Your task to perform on an android device: Show the shopping cart on ebay. Image 0: 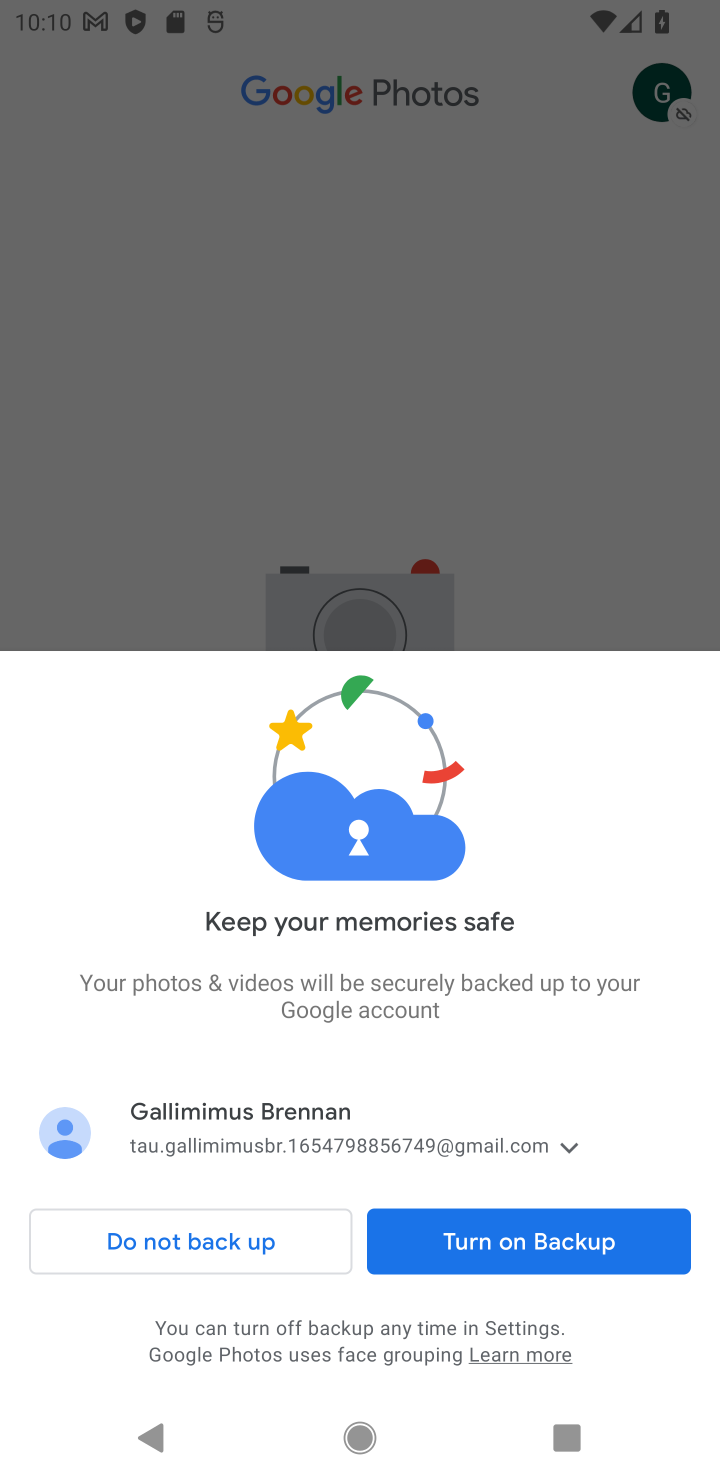
Step 0: press home button
Your task to perform on an android device: Show the shopping cart on ebay. Image 1: 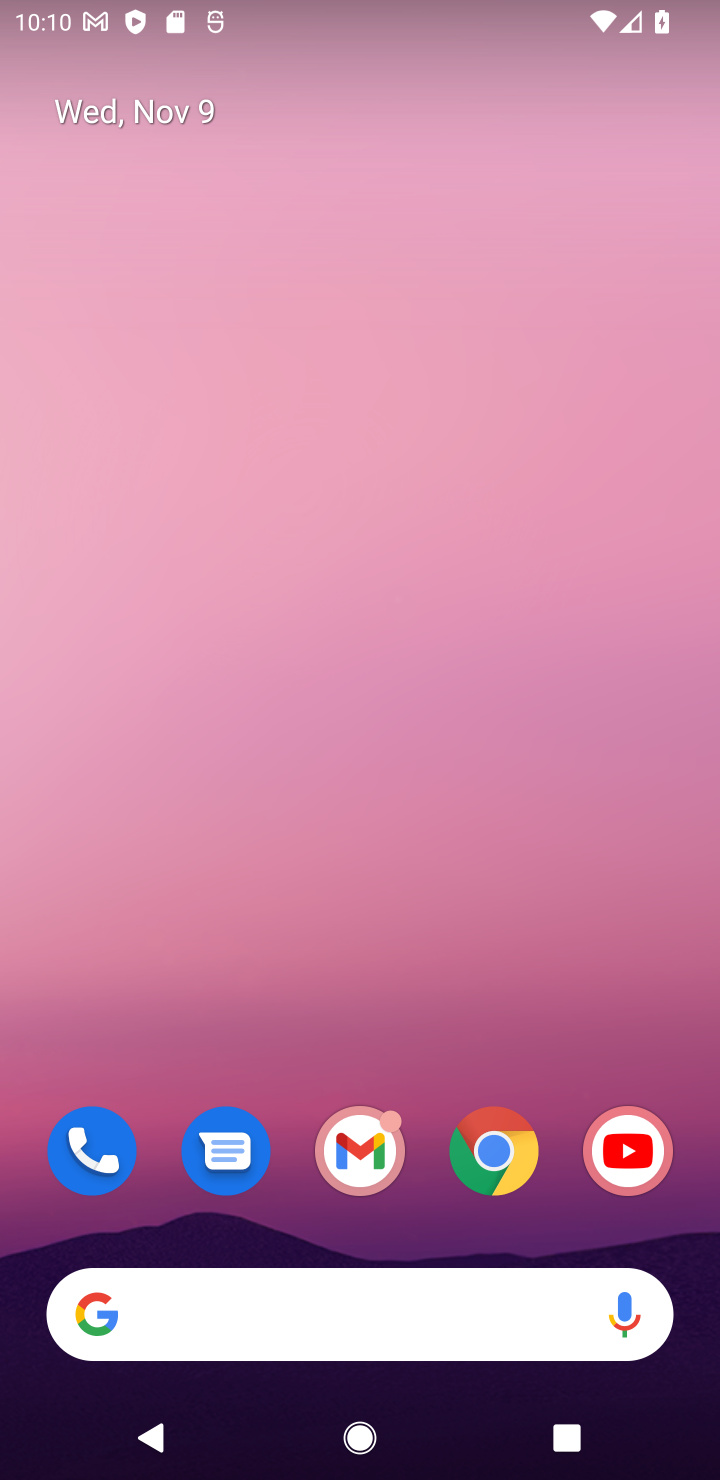
Step 1: click (501, 1142)
Your task to perform on an android device: Show the shopping cart on ebay. Image 2: 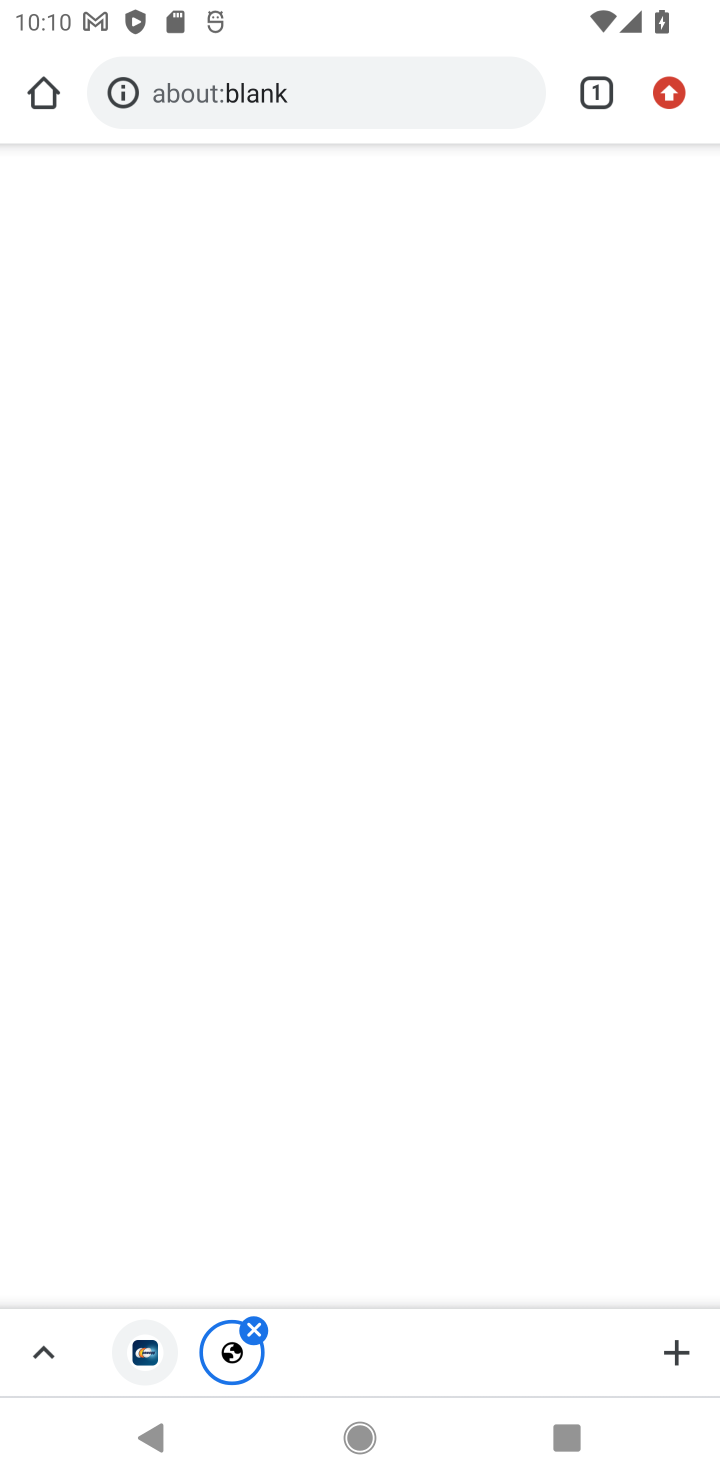
Step 2: press home button
Your task to perform on an android device: Show the shopping cart on ebay. Image 3: 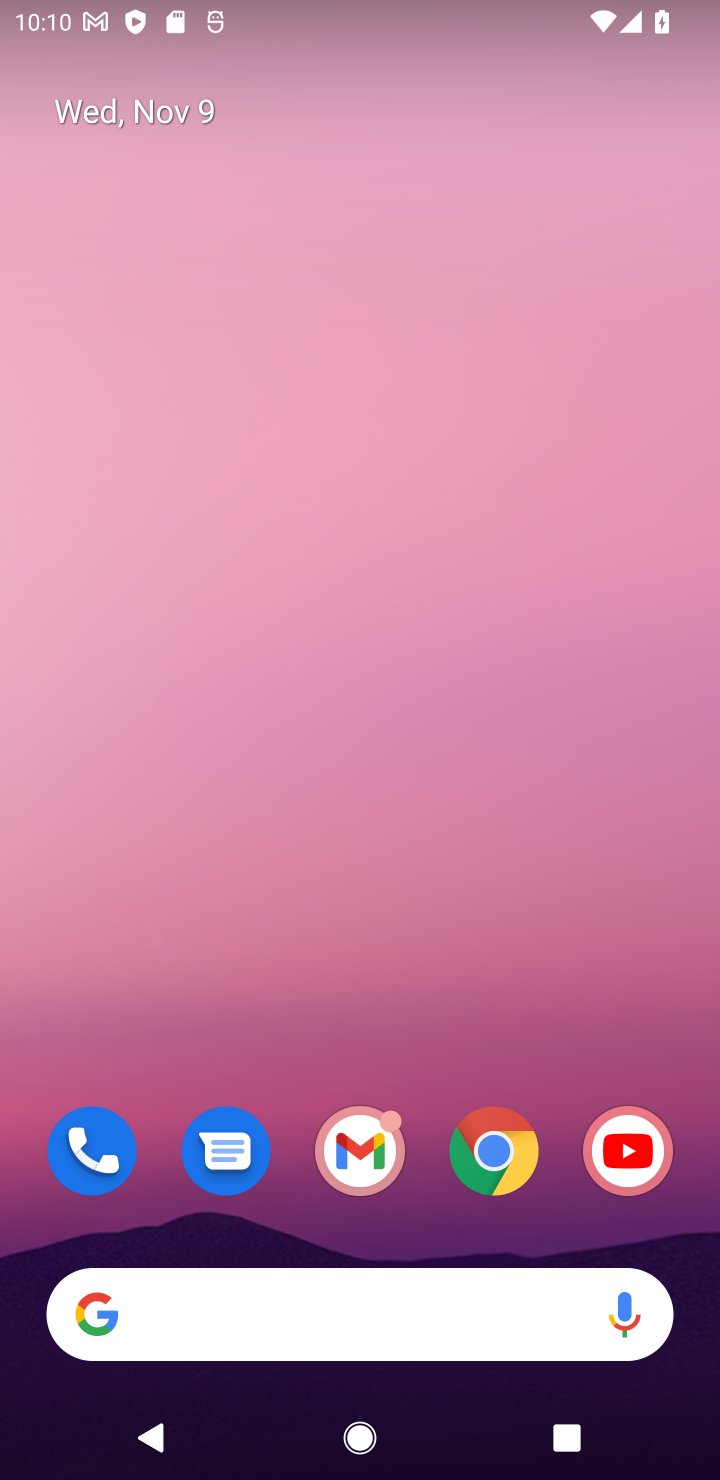
Step 3: click (501, 1147)
Your task to perform on an android device: Show the shopping cart on ebay. Image 4: 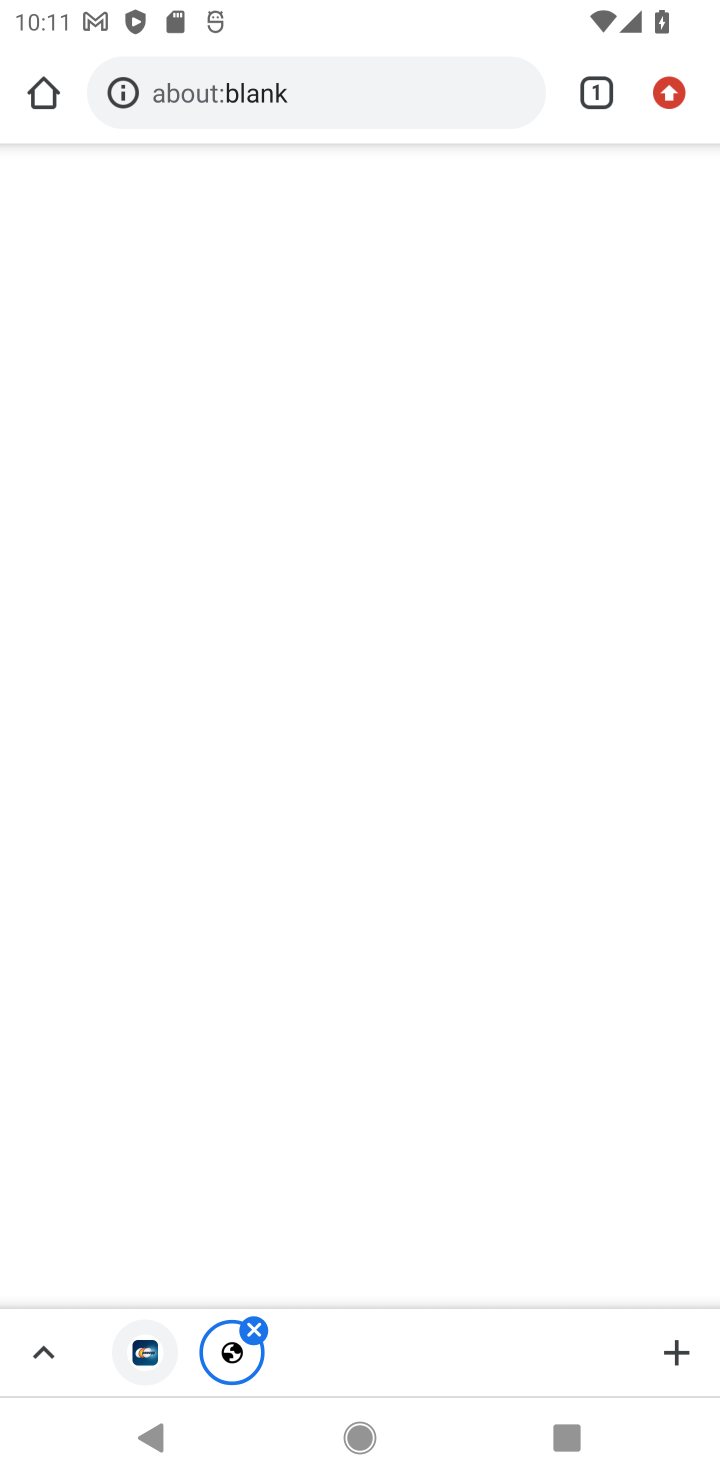
Step 4: click (42, 94)
Your task to perform on an android device: Show the shopping cart on ebay. Image 5: 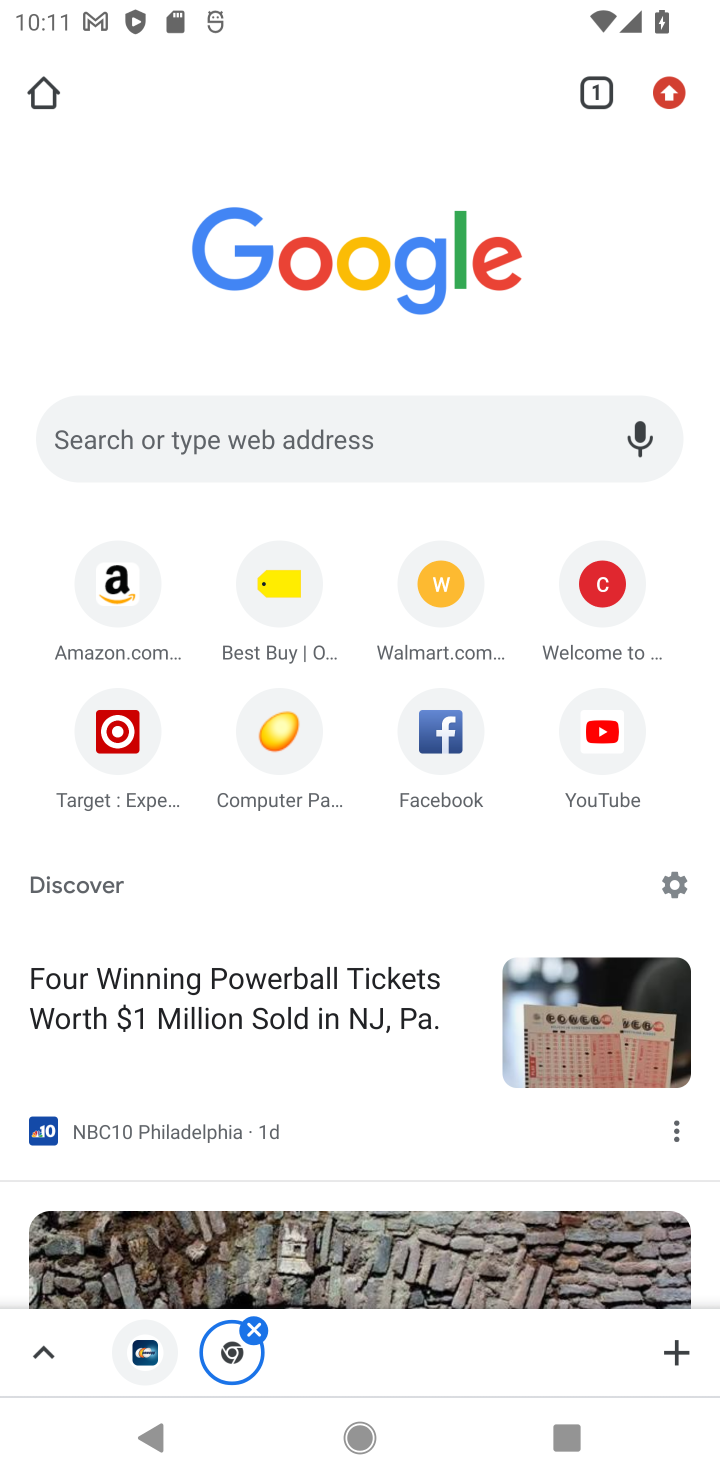
Step 5: click (314, 451)
Your task to perform on an android device: Show the shopping cart on ebay. Image 6: 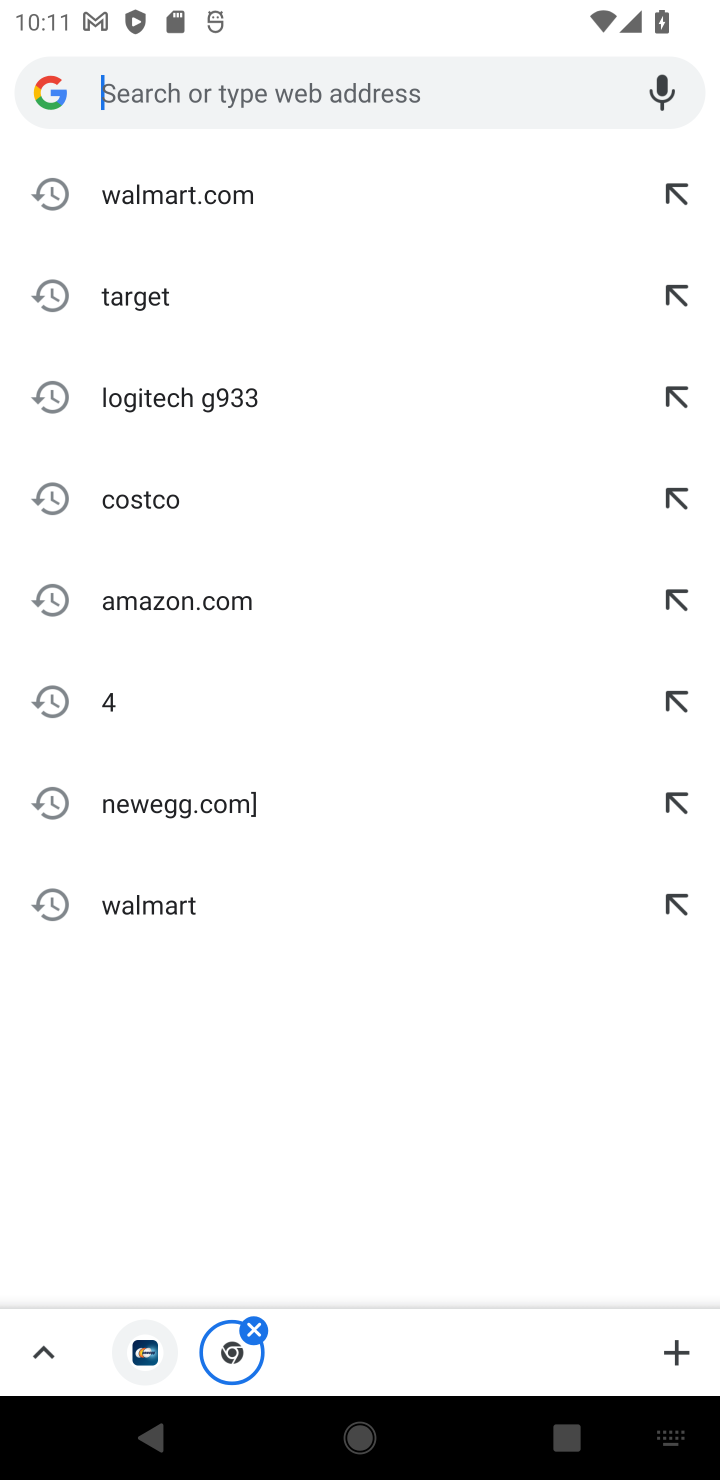
Step 6: type "ebay"
Your task to perform on an android device: Show the shopping cart on ebay. Image 7: 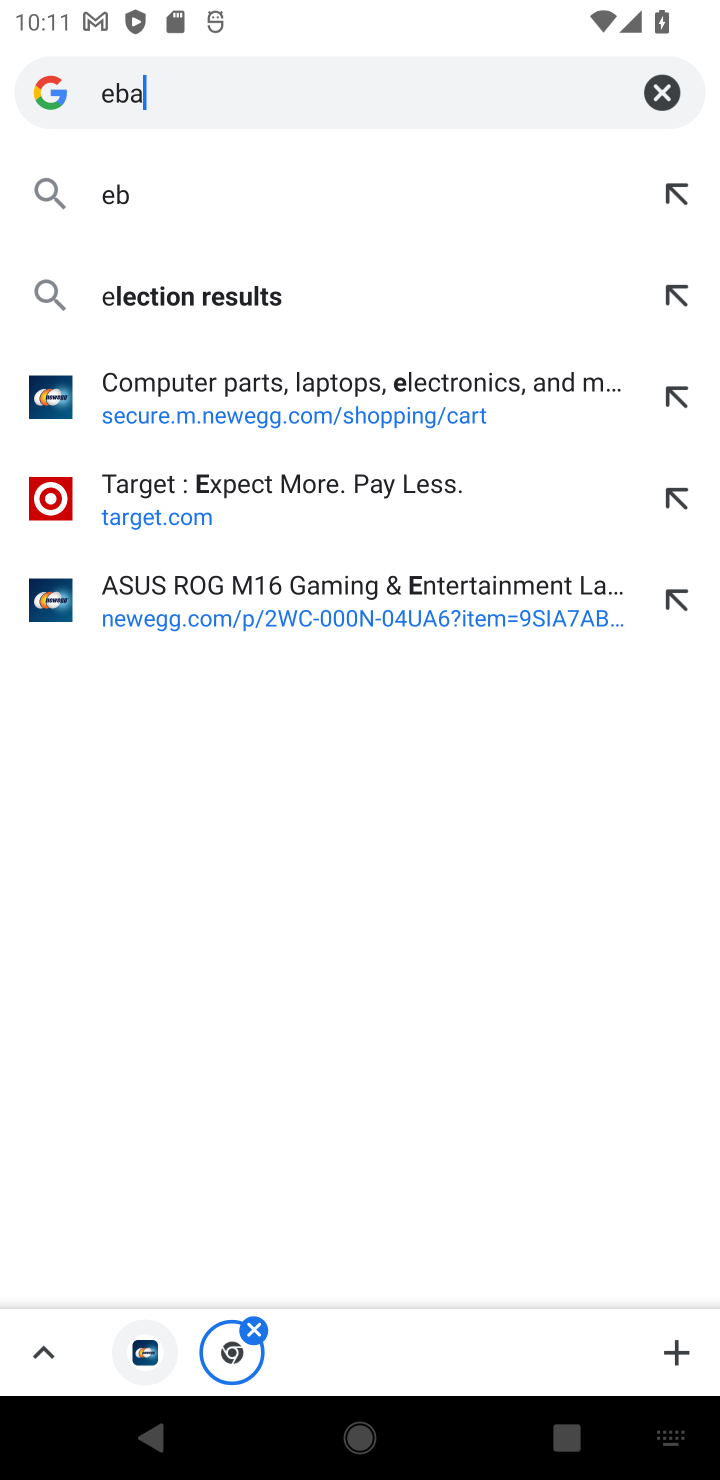
Step 7: press enter
Your task to perform on an android device: Show the shopping cart on ebay. Image 8: 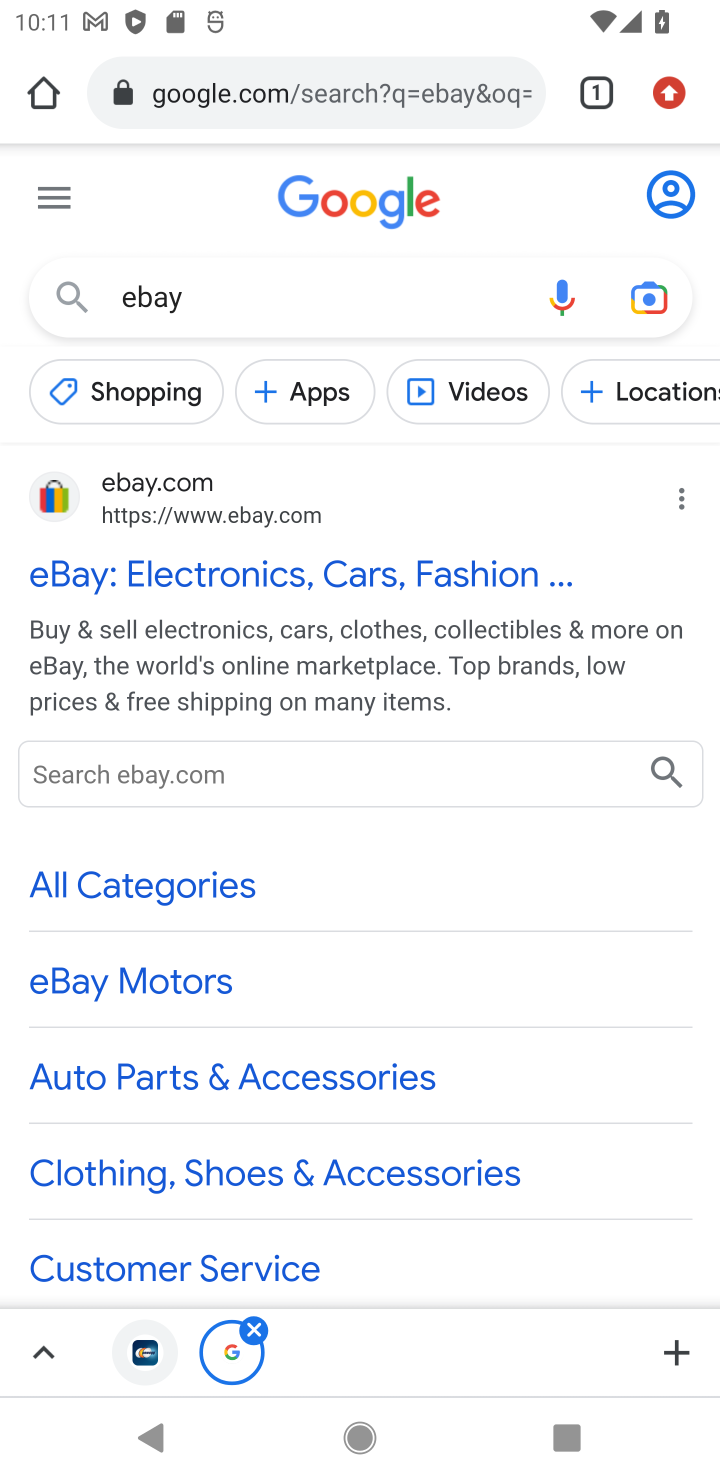
Step 8: click (231, 505)
Your task to perform on an android device: Show the shopping cart on ebay. Image 9: 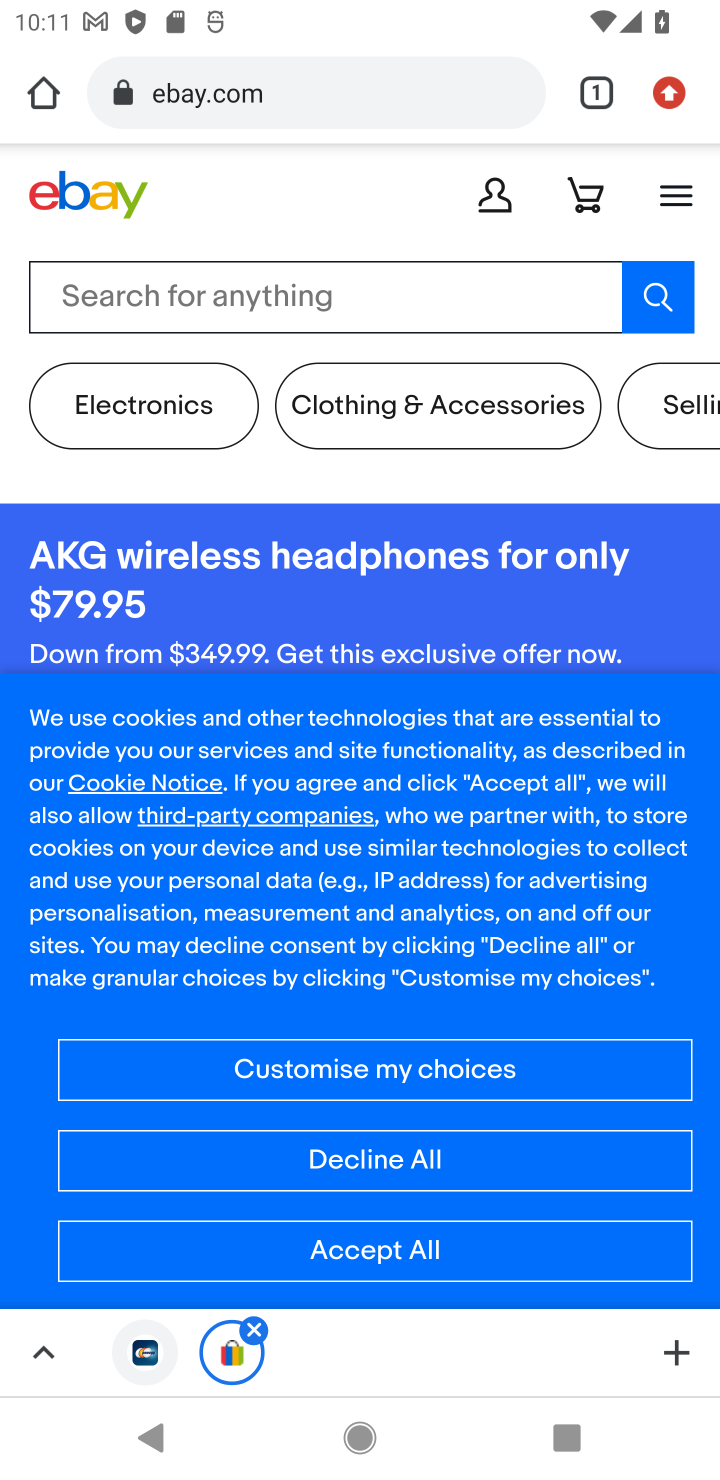
Step 9: task complete